Your task to perform on an android device: open app "Adobe Acrobat Reader" Image 0: 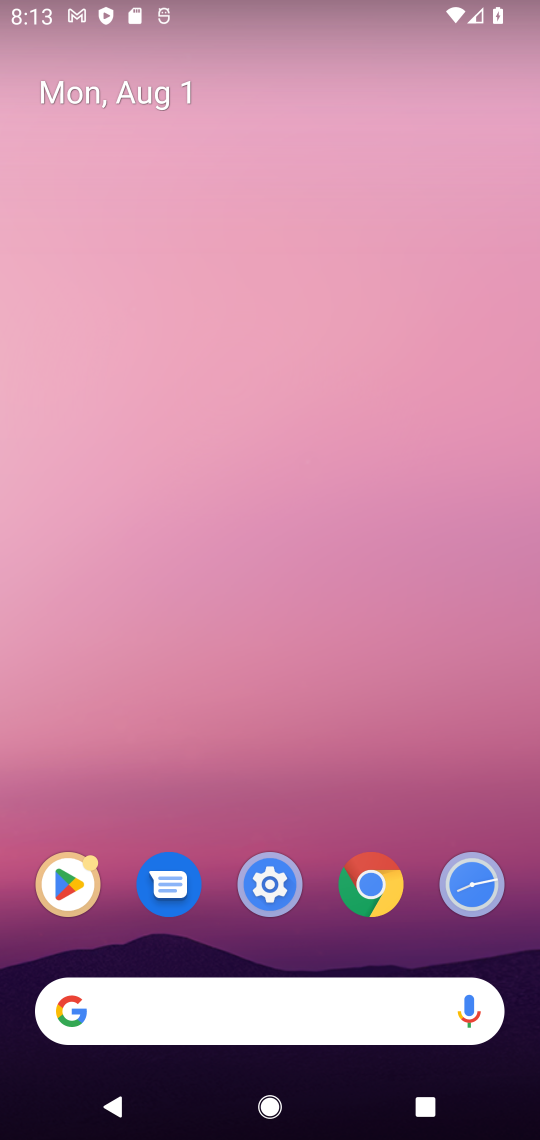
Step 0: drag from (236, 764) to (293, 275)
Your task to perform on an android device: open app "Adobe Acrobat Reader" Image 1: 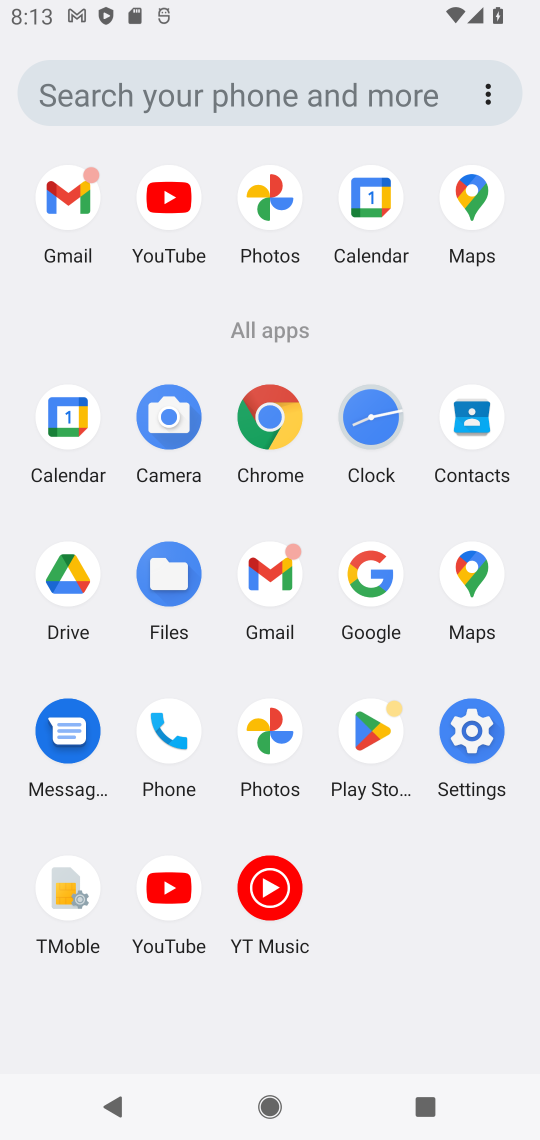
Step 1: click (365, 741)
Your task to perform on an android device: open app "Adobe Acrobat Reader" Image 2: 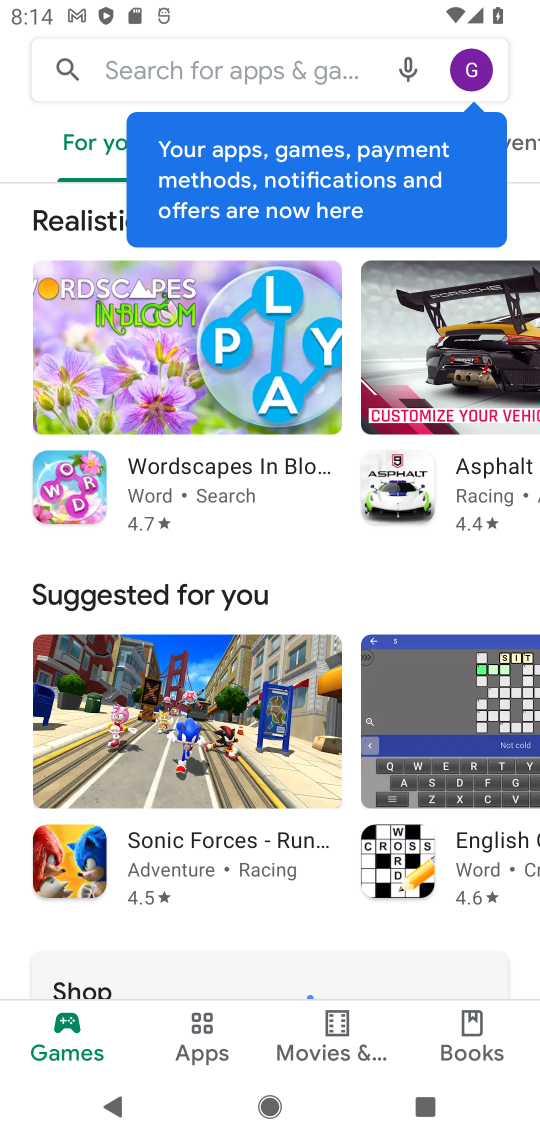
Step 2: click (74, 71)
Your task to perform on an android device: open app "Adobe Acrobat Reader" Image 3: 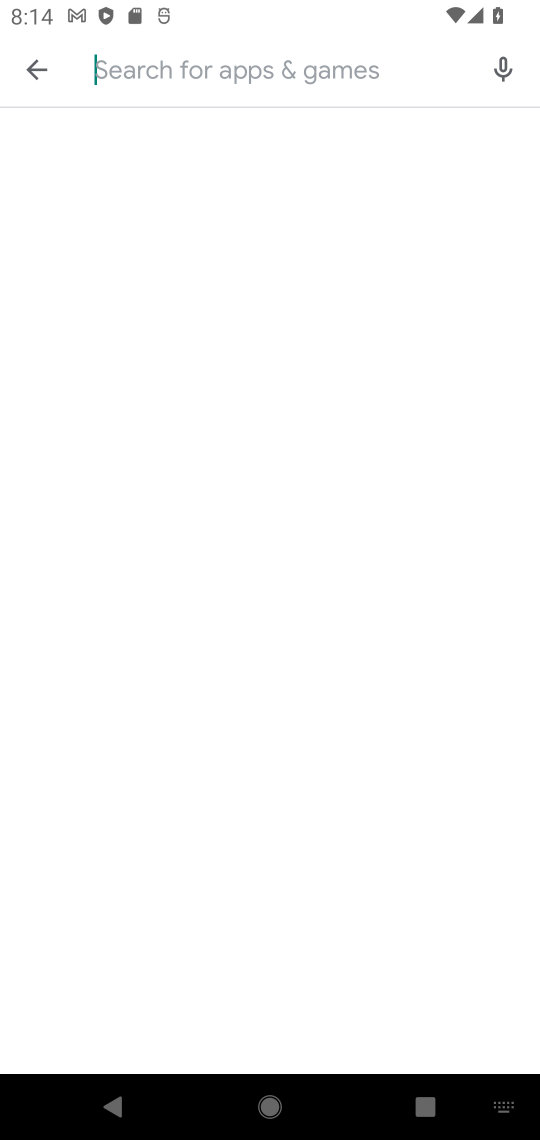
Step 3: type "adobe acrobat"
Your task to perform on an android device: open app "Adobe Acrobat Reader" Image 4: 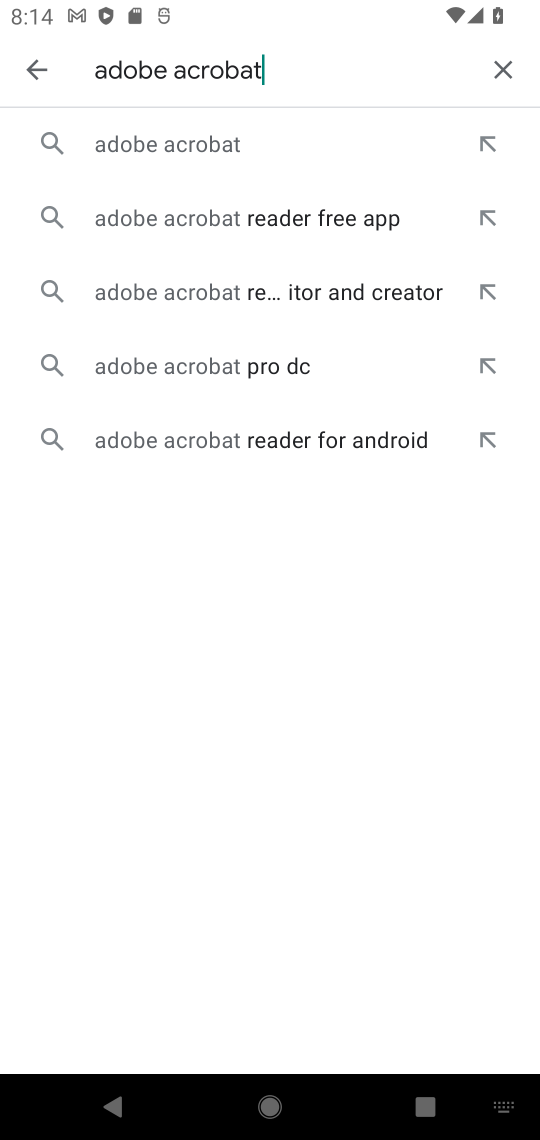
Step 4: click (302, 153)
Your task to perform on an android device: open app "Adobe Acrobat Reader" Image 5: 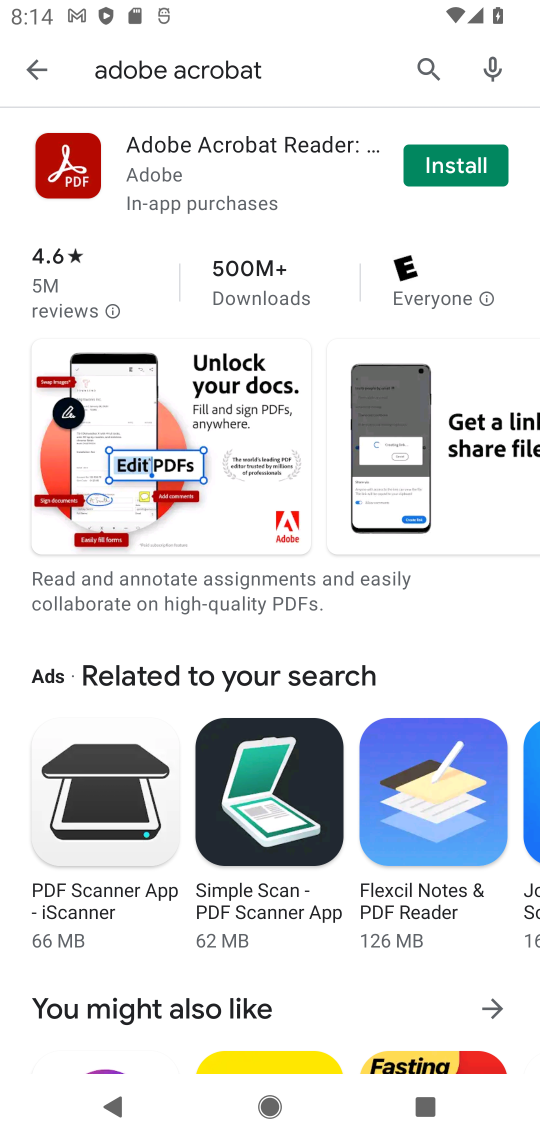
Step 5: task complete